Your task to perform on an android device: Open Google Image 0: 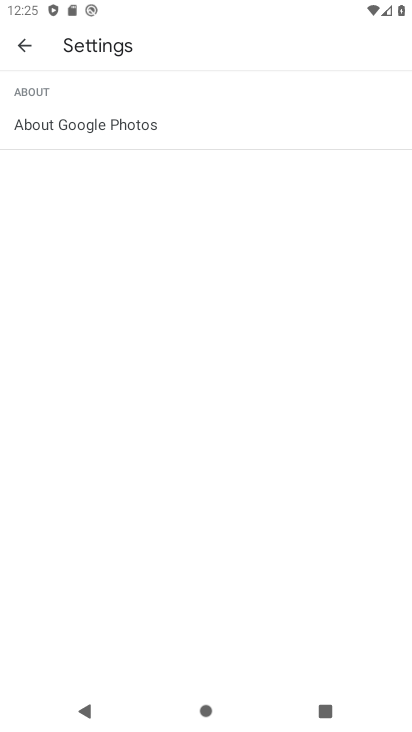
Step 0: press home button
Your task to perform on an android device: Open Google Image 1: 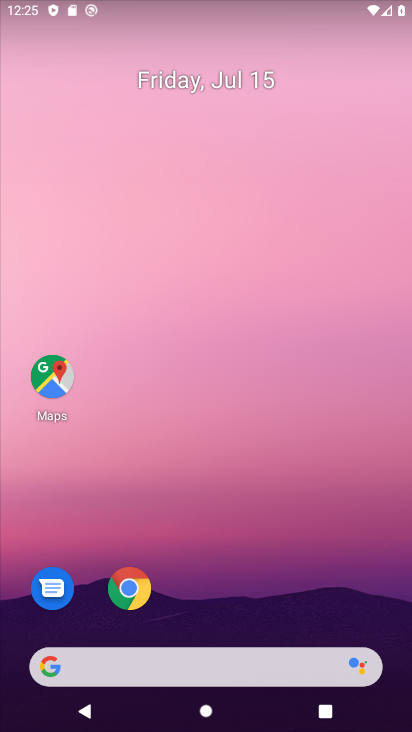
Step 1: drag from (268, 599) to (264, 195)
Your task to perform on an android device: Open Google Image 2: 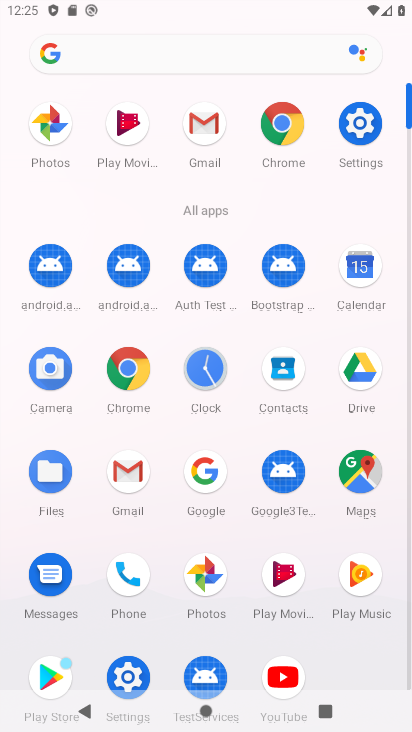
Step 2: click (202, 471)
Your task to perform on an android device: Open Google Image 3: 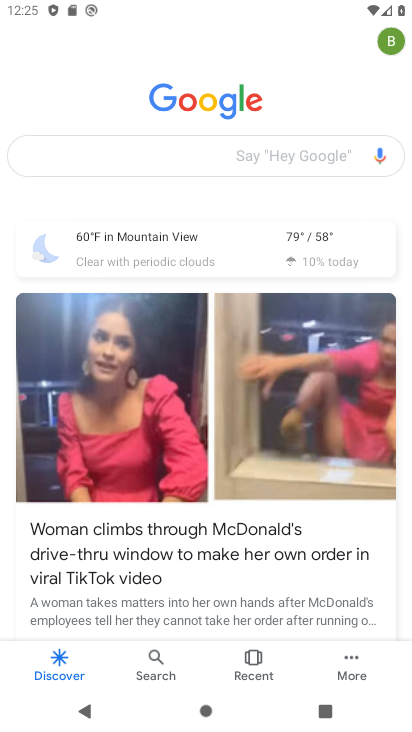
Step 3: task complete